Your task to perform on an android device: Open display settings Image 0: 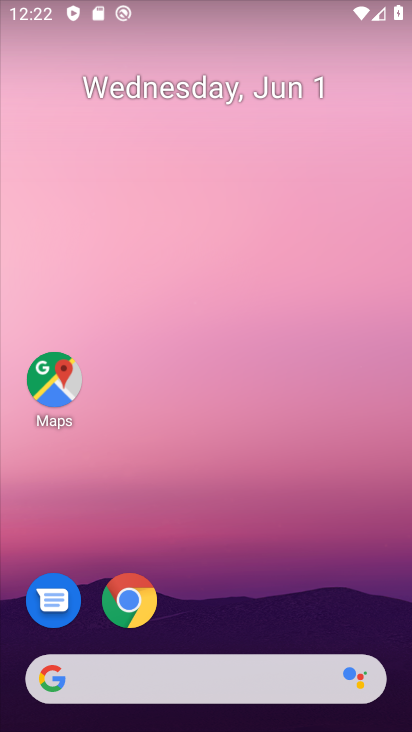
Step 0: drag from (218, 632) to (229, 40)
Your task to perform on an android device: Open display settings Image 1: 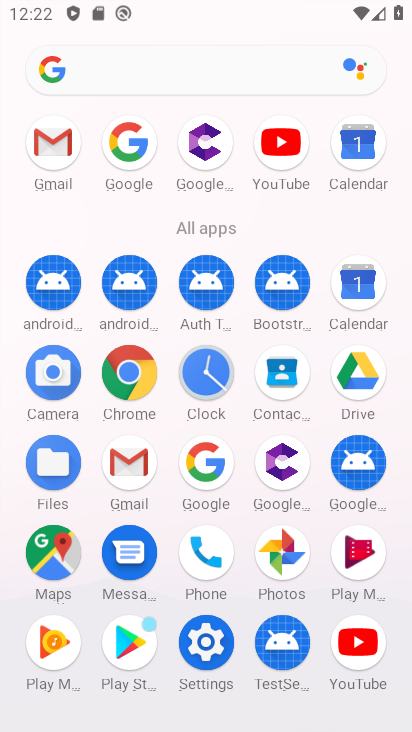
Step 1: click (204, 638)
Your task to perform on an android device: Open display settings Image 2: 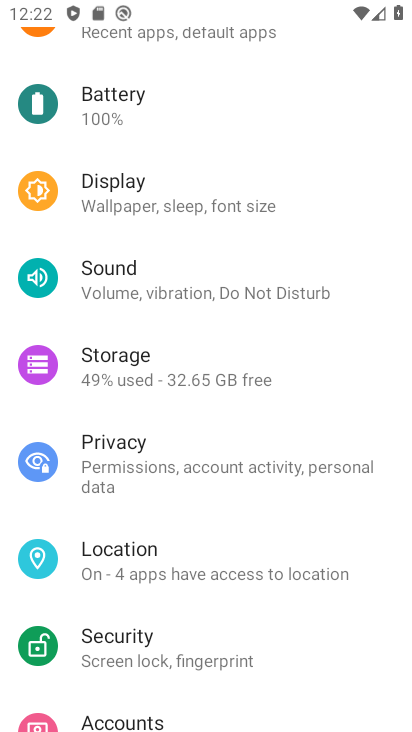
Step 2: click (162, 183)
Your task to perform on an android device: Open display settings Image 3: 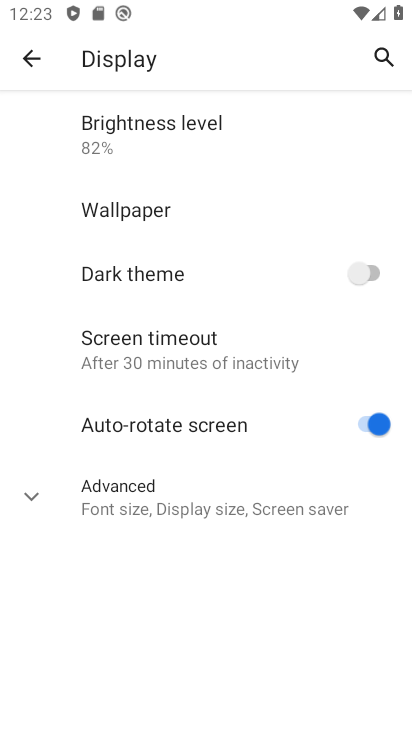
Step 3: click (37, 489)
Your task to perform on an android device: Open display settings Image 4: 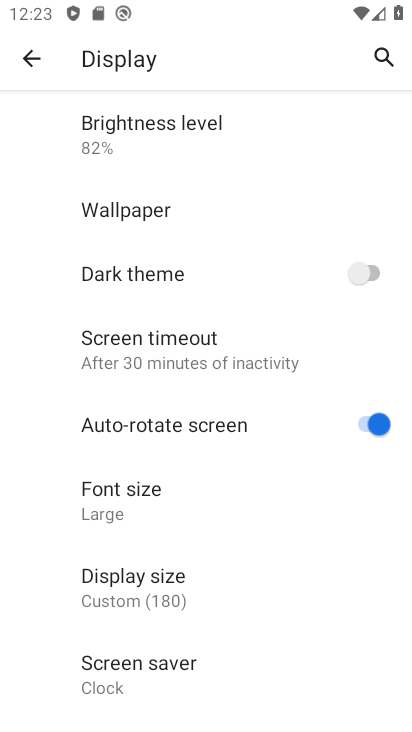
Step 4: task complete